Your task to perform on an android device: Open the map Image 0: 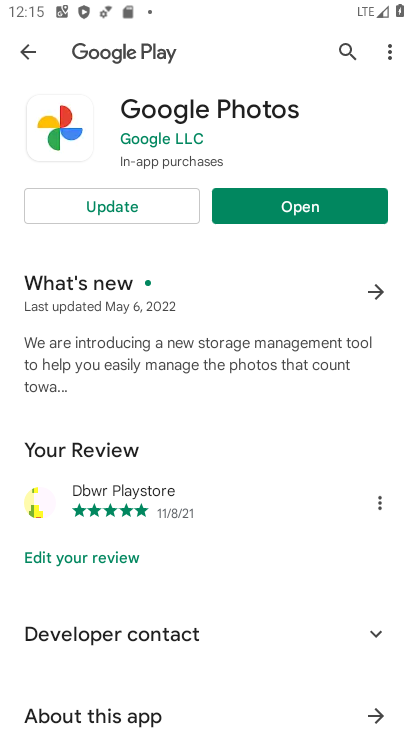
Step 0: press home button
Your task to perform on an android device: Open the map Image 1: 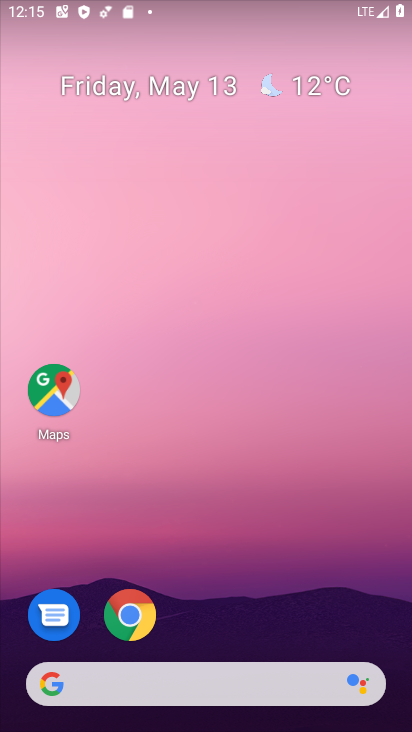
Step 1: click (65, 408)
Your task to perform on an android device: Open the map Image 2: 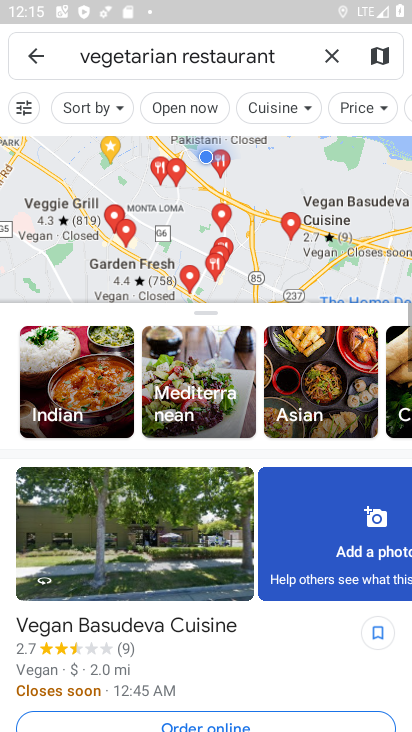
Step 2: click (322, 57)
Your task to perform on an android device: Open the map Image 3: 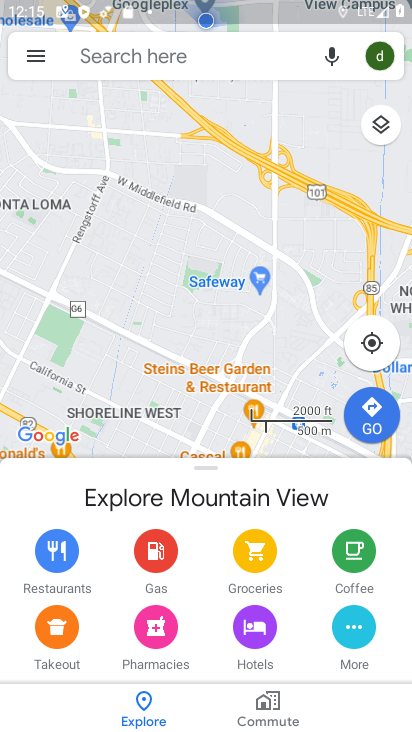
Step 3: task complete